Your task to perform on an android device: toggle show notifications on the lock screen Image 0: 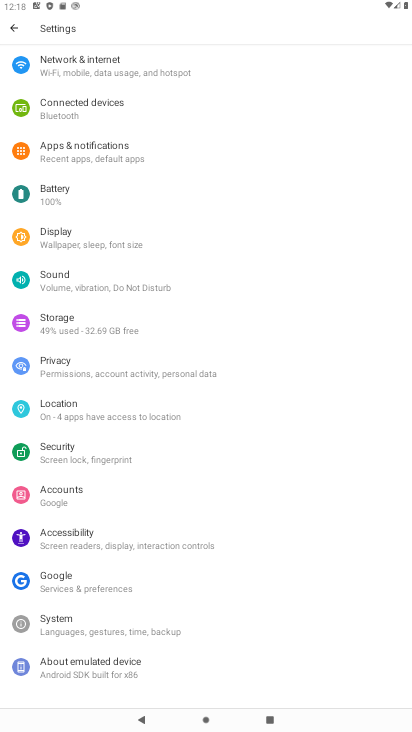
Step 0: click (132, 163)
Your task to perform on an android device: toggle show notifications on the lock screen Image 1: 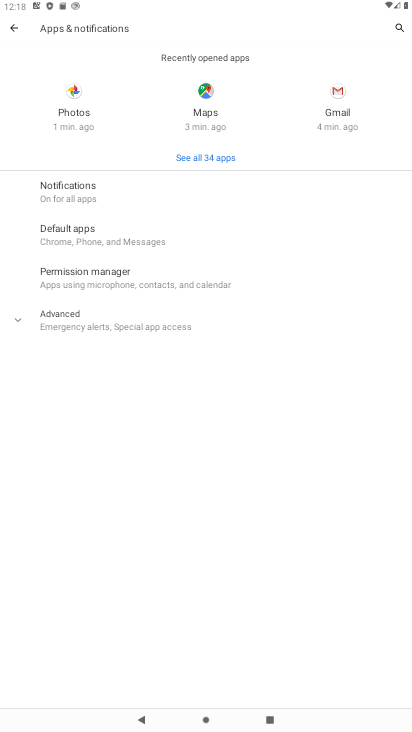
Step 1: click (109, 195)
Your task to perform on an android device: toggle show notifications on the lock screen Image 2: 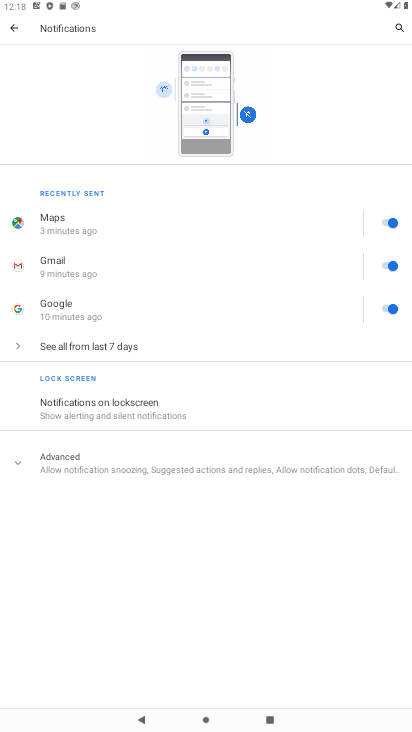
Step 2: click (169, 396)
Your task to perform on an android device: toggle show notifications on the lock screen Image 3: 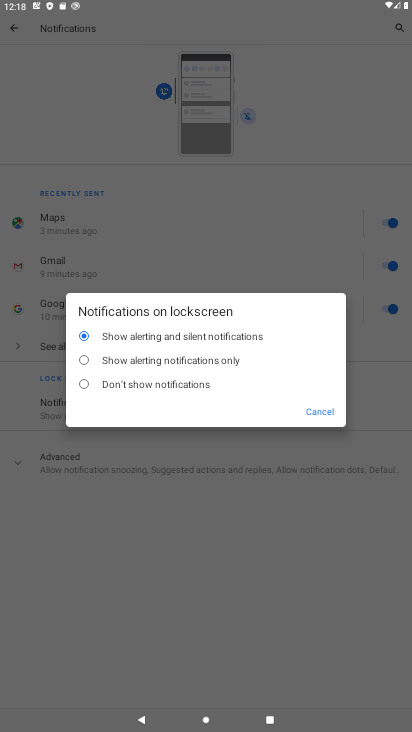
Step 3: click (89, 379)
Your task to perform on an android device: toggle show notifications on the lock screen Image 4: 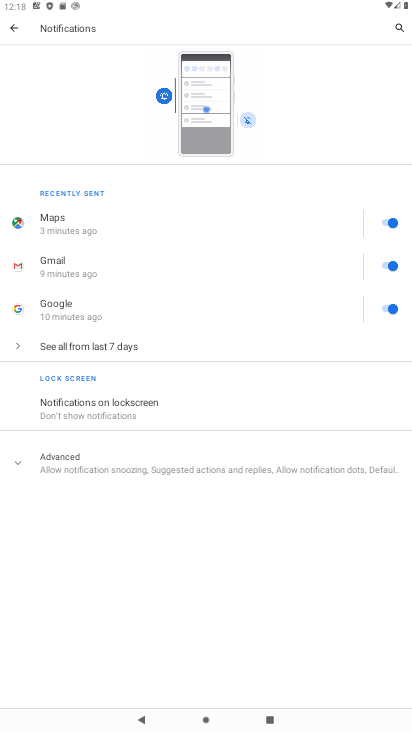
Step 4: task complete